Your task to perform on an android device: Search for seafood restaurants on Google Maps Image 0: 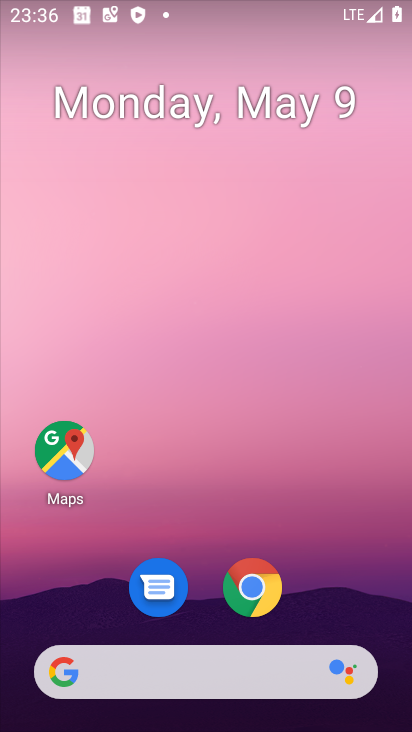
Step 0: click (59, 439)
Your task to perform on an android device: Search for seafood restaurants on Google Maps Image 1: 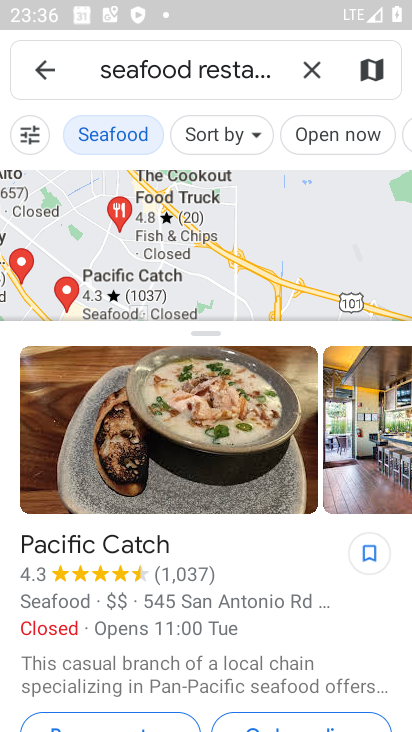
Step 1: task complete